Your task to perform on an android device: Open Google Chrome and open the bookmarks view Image 0: 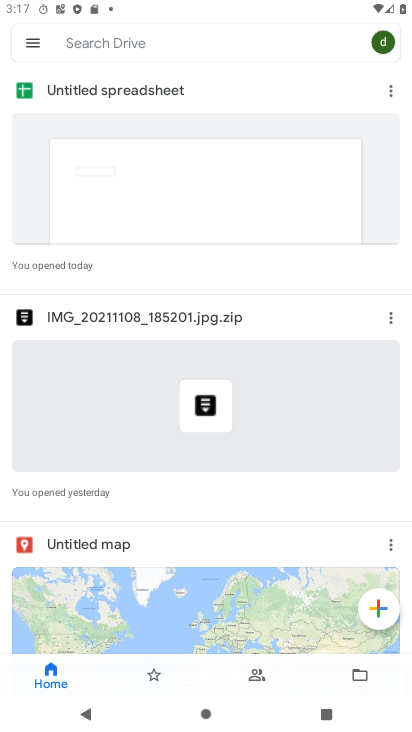
Step 0: press home button
Your task to perform on an android device: Open Google Chrome and open the bookmarks view Image 1: 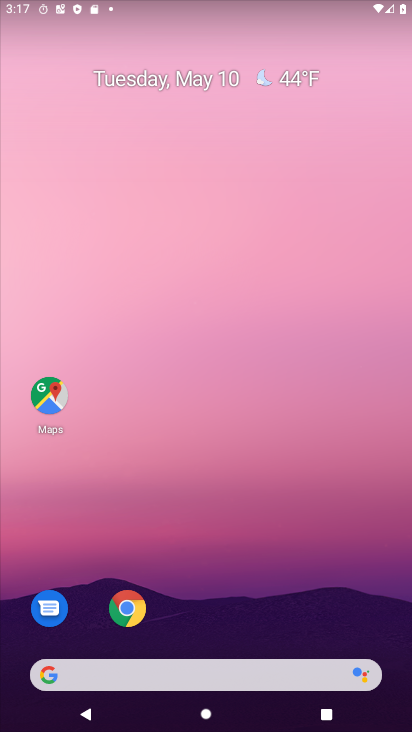
Step 1: click (136, 614)
Your task to perform on an android device: Open Google Chrome and open the bookmarks view Image 2: 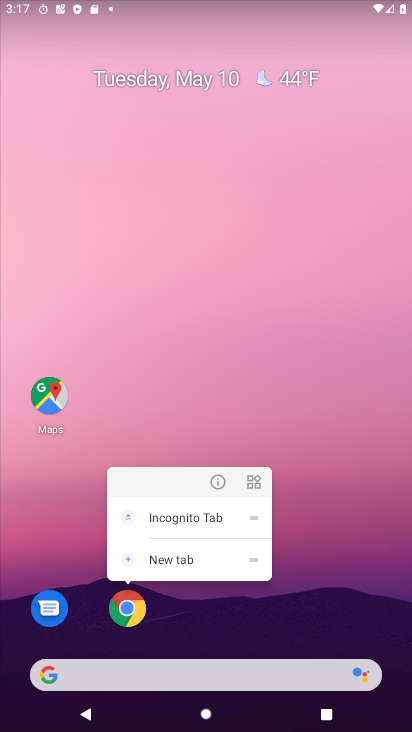
Step 2: click (128, 612)
Your task to perform on an android device: Open Google Chrome and open the bookmarks view Image 3: 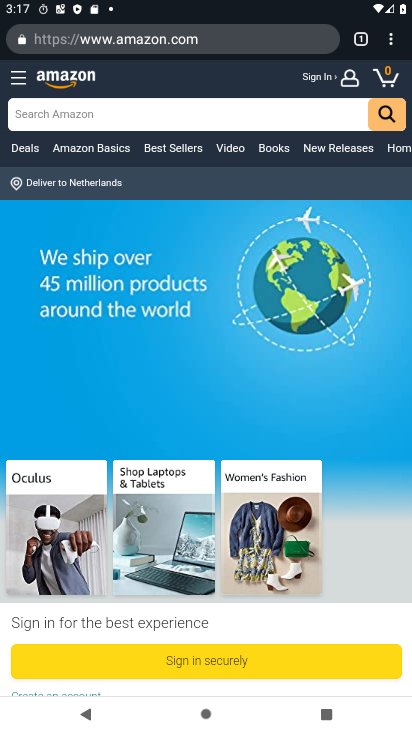
Step 3: task complete